Your task to perform on an android device: Do I have any events today? Image 0: 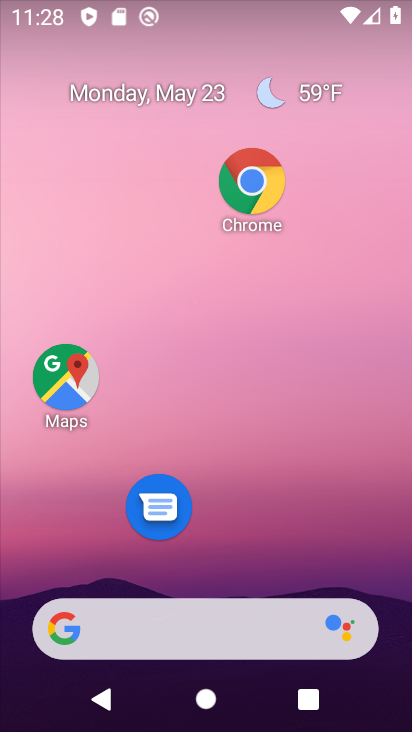
Step 0: click (321, 564)
Your task to perform on an android device: Do I have any events today? Image 1: 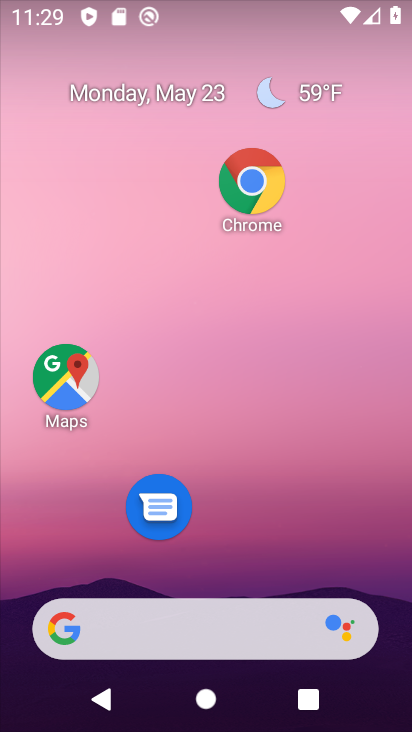
Step 1: drag from (282, 537) to (292, 168)
Your task to perform on an android device: Do I have any events today? Image 2: 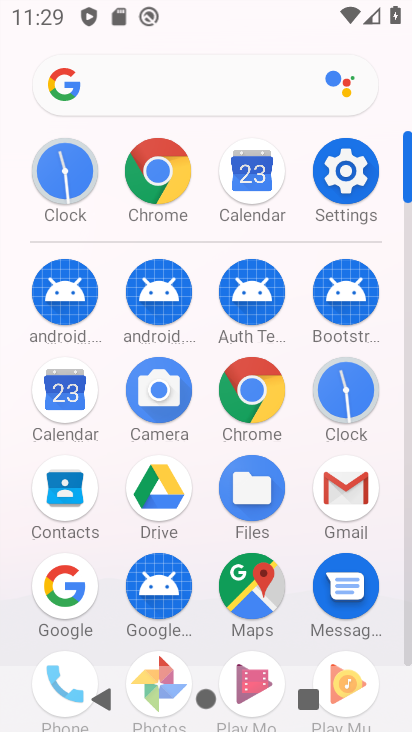
Step 2: click (65, 389)
Your task to perform on an android device: Do I have any events today? Image 3: 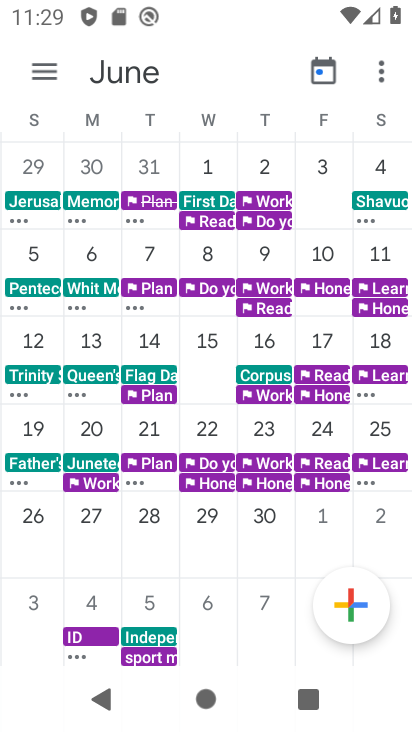
Step 3: drag from (78, 297) to (408, 342)
Your task to perform on an android device: Do I have any events today? Image 4: 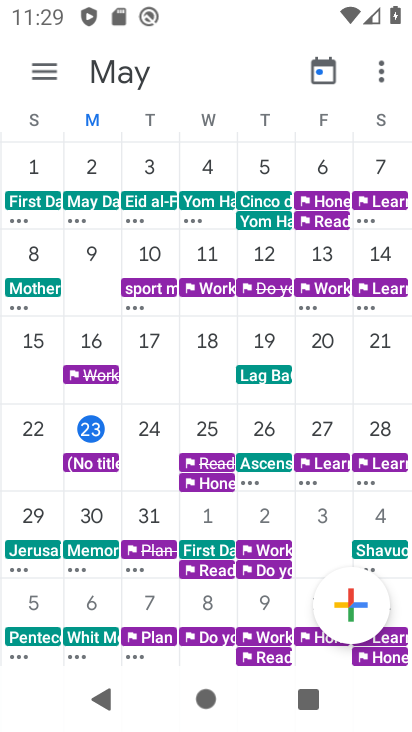
Step 4: click (143, 444)
Your task to perform on an android device: Do I have any events today? Image 5: 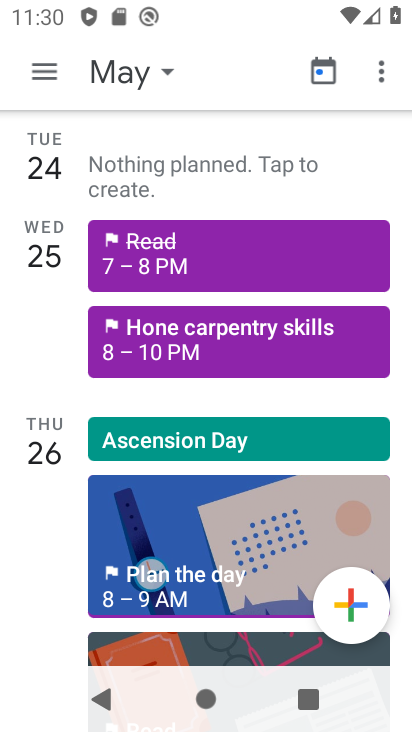
Step 5: task complete